Your task to perform on an android device: refresh tabs in the chrome app Image 0: 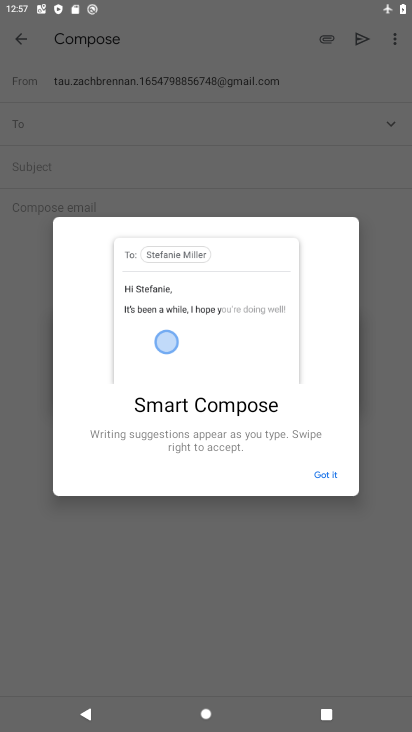
Step 0: press home button
Your task to perform on an android device: refresh tabs in the chrome app Image 1: 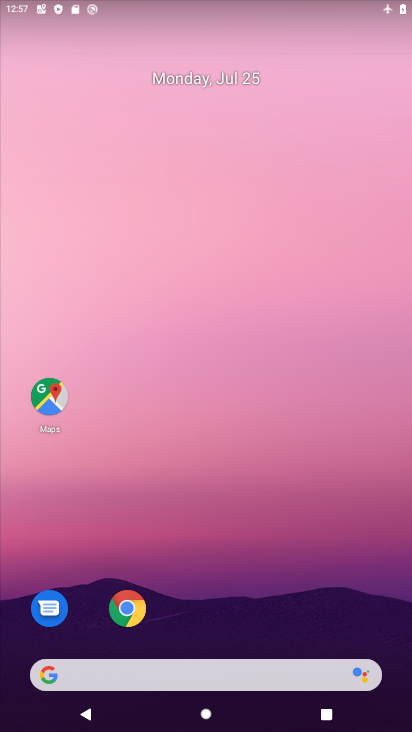
Step 1: click (135, 609)
Your task to perform on an android device: refresh tabs in the chrome app Image 2: 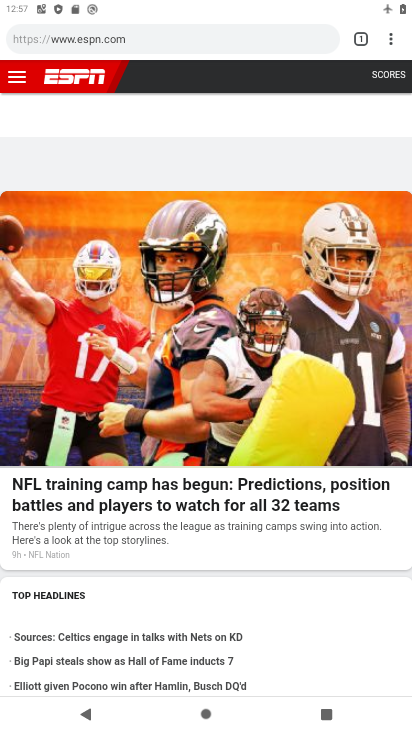
Step 2: click (392, 42)
Your task to perform on an android device: refresh tabs in the chrome app Image 3: 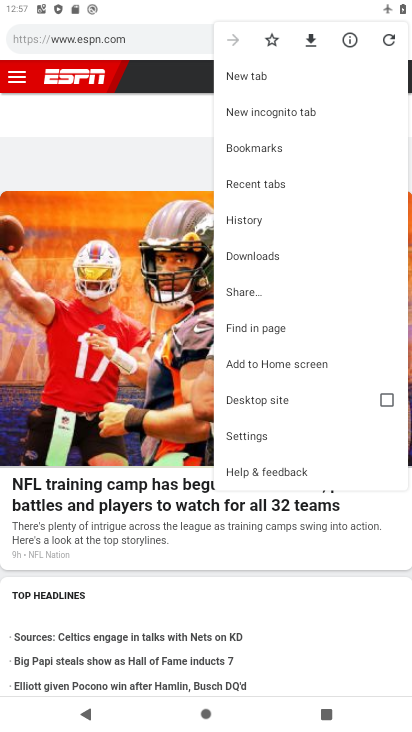
Step 3: click (392, 42)
Your task to perform on an android device: refresh tabs in the chrome app Image 4: 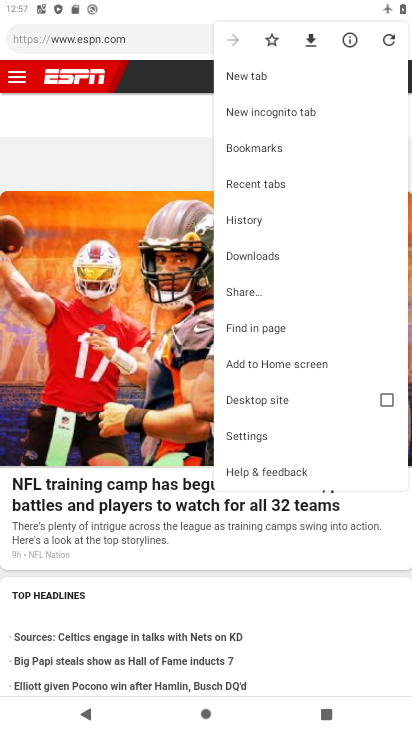
Step 4: click (394, 36)
Your task to perform on an android device: refresh tabs in the chrome app Image 5: 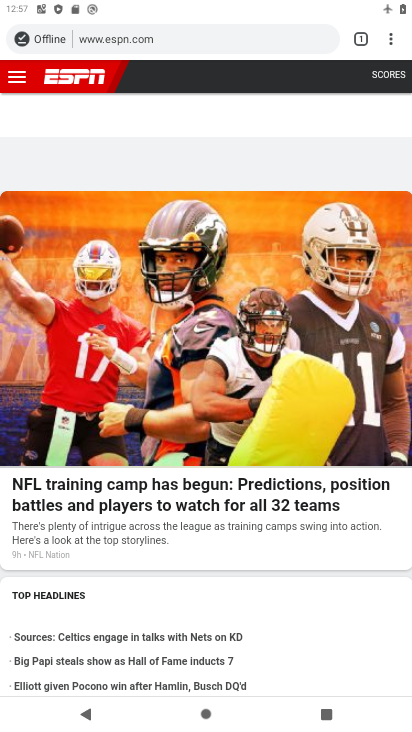
Step 5: task complete